Your task to perform on an android device: toggle location history Image 0: 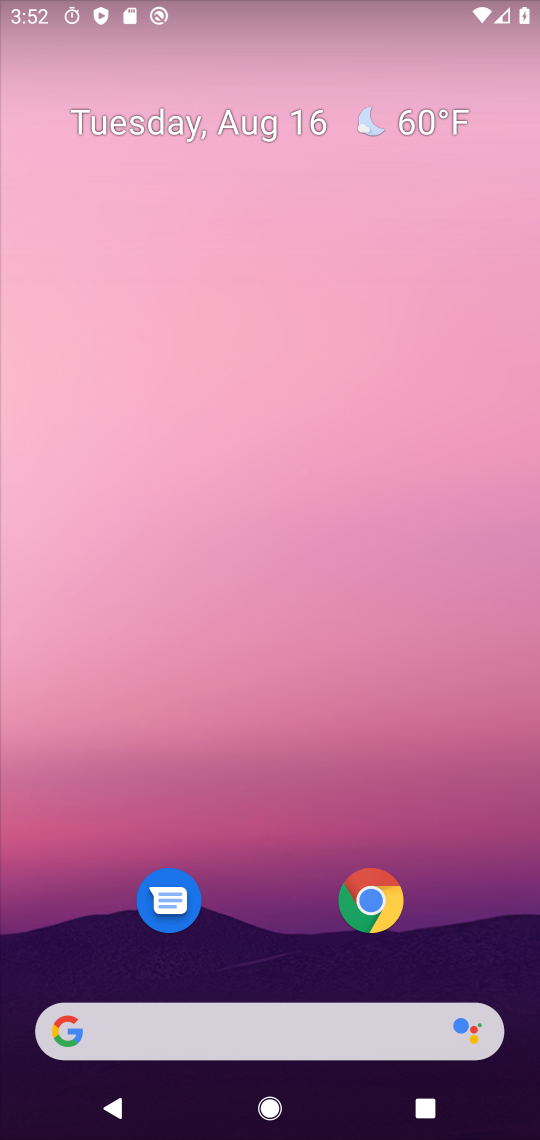
Step 0: drag from (294, 996) to (295, 12)
Your task to perform on an android device: toggle location history Image 1: 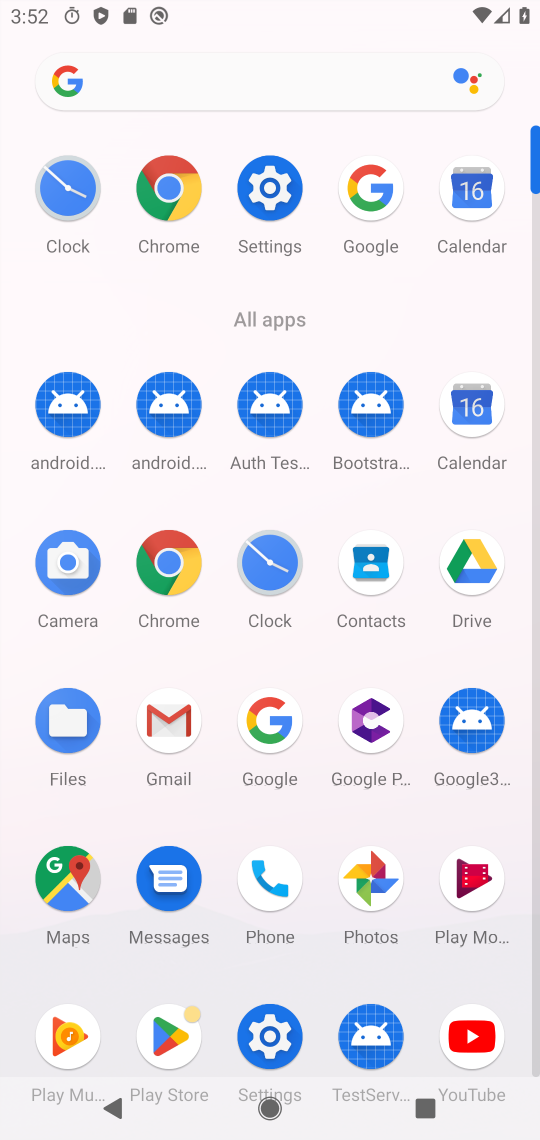
Step 1: click (269, 191)
Your task to perform on an android device: toggle location history Image 2: 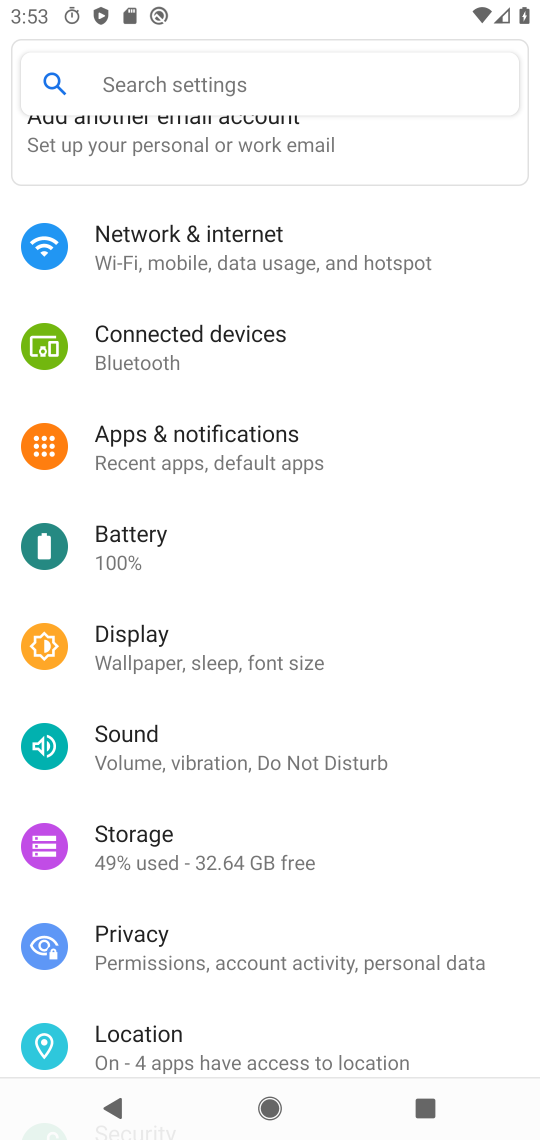
Step 2: click (136, 1034)
Your task to perform on an android device: toggle location history Image 3: 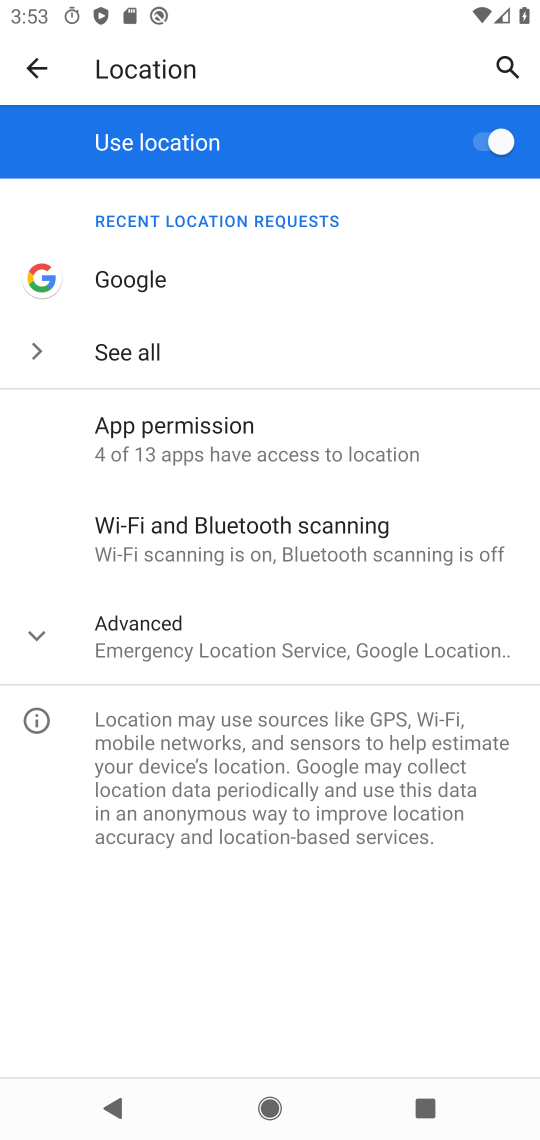
Step 3: click (141, 639)
Your task to perform on an android device: toggle location history Image 4: 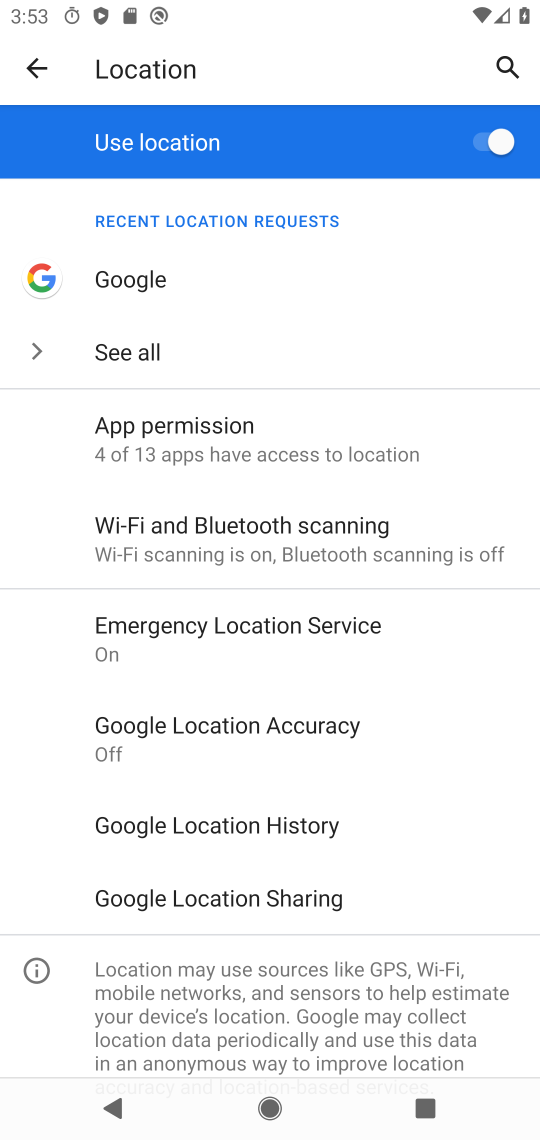
Step 4: click (194, 817)
Your task to perform on an android device: toggle location history Image 5: 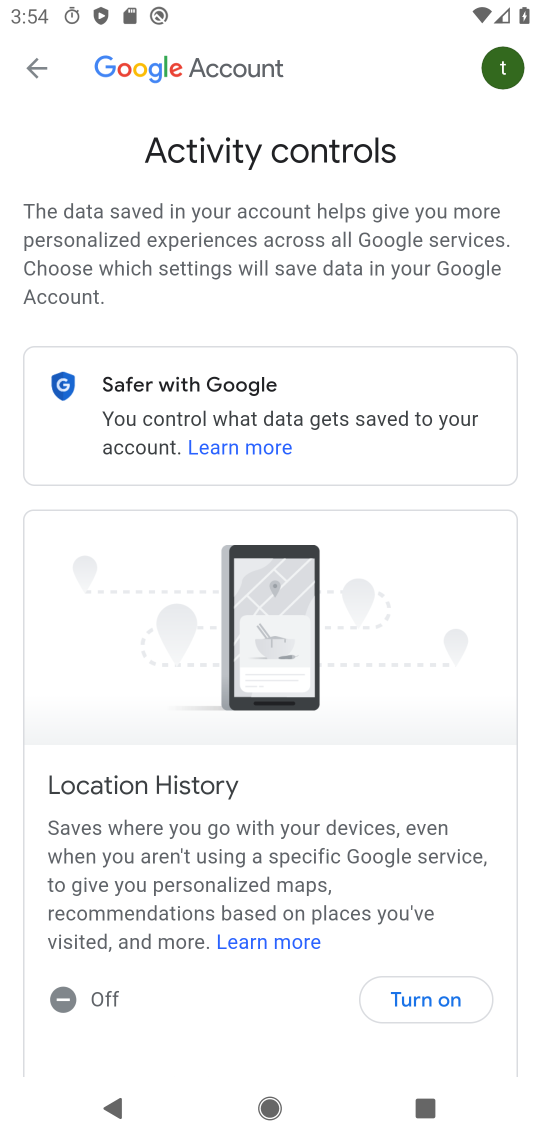
Step 5: click (426, 988)
Your task to perform on an android device: toggle location history Image 6: 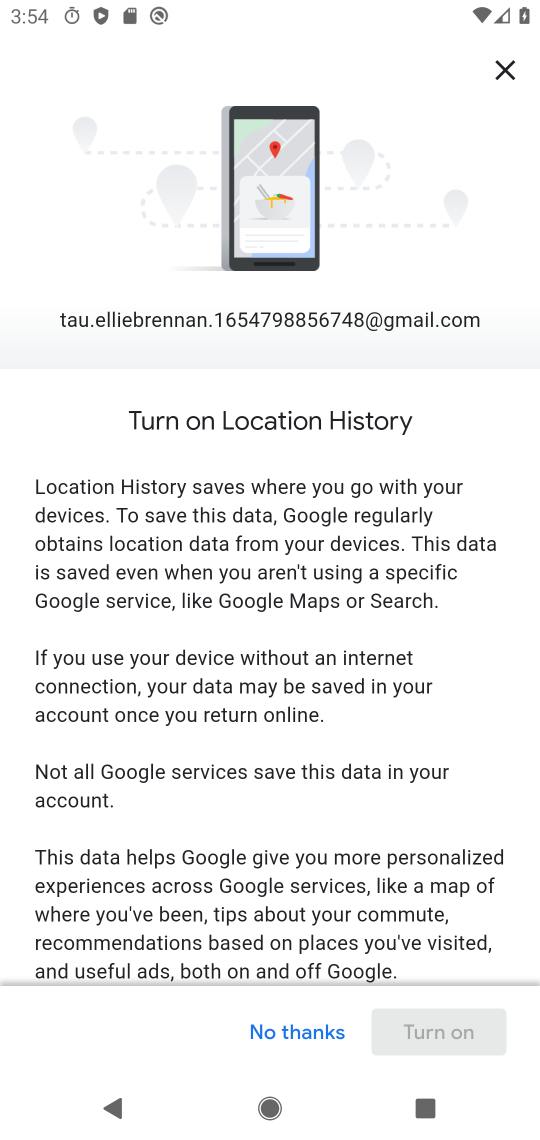
Step 6: drag from (302, 919) to (302, 863)
Your task to perform on an android device: toggle location history Image 7: 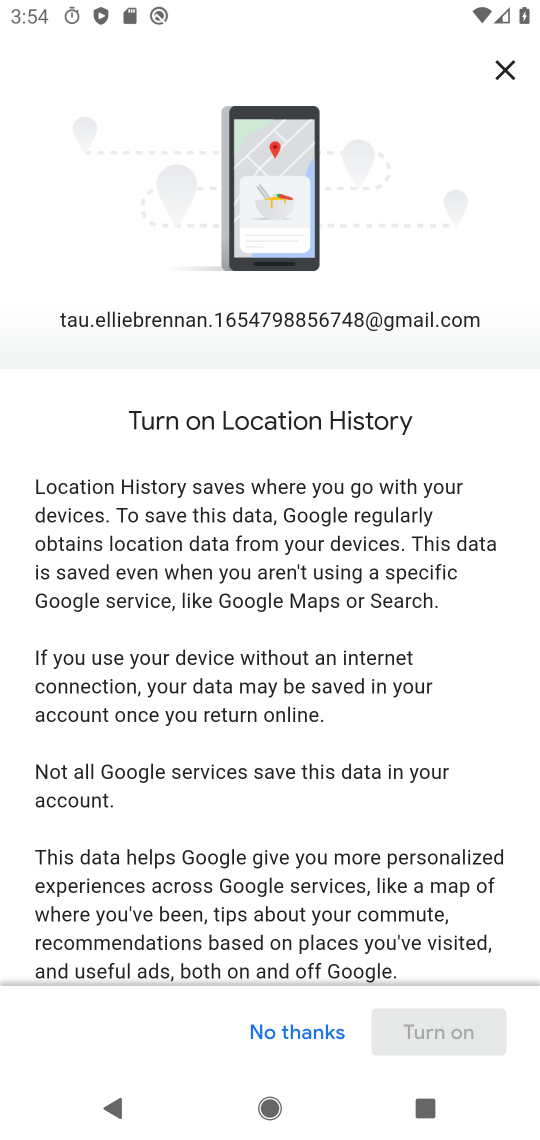
Step 7: click (271, 353)
Your task to perform on an android device: toggle location history Image 8: 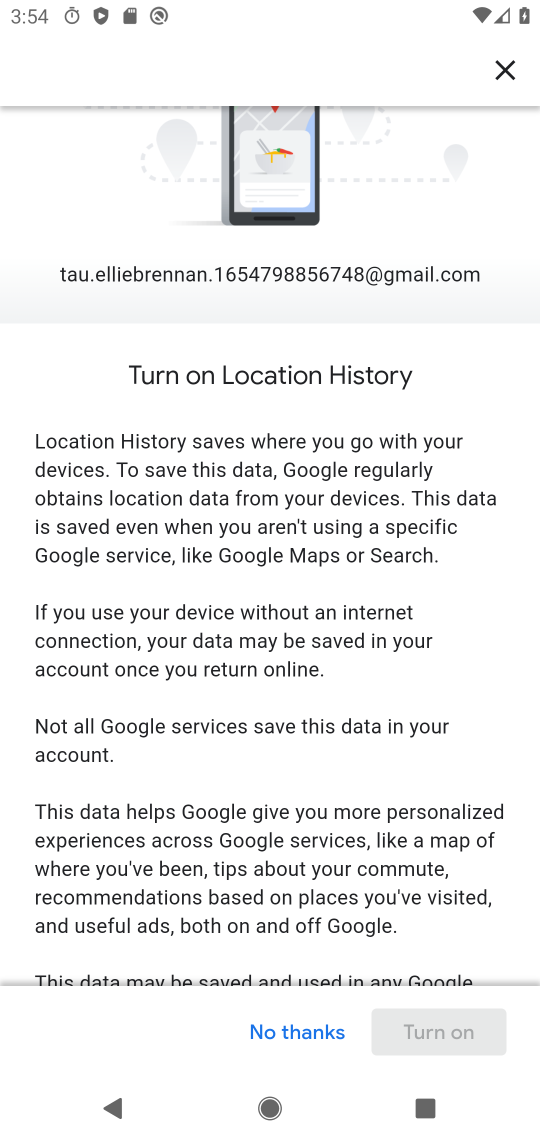
Step 8: drag from (372, 930) to (308, 387)
Your task to perform on an android device: toggle location history Image 9: 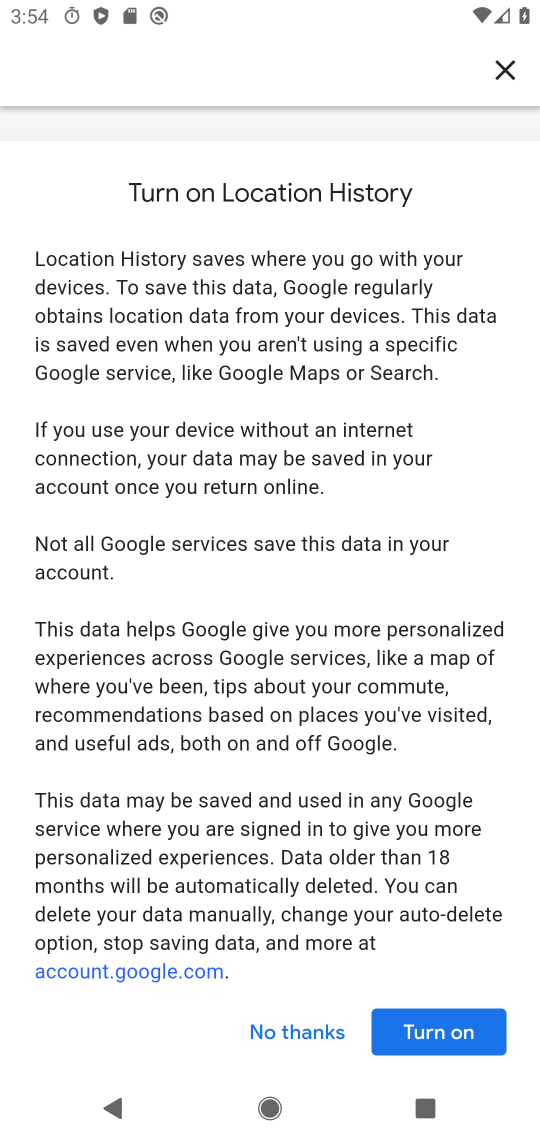
Step 9: click (423, 1038)
Your task to perform on an android device: toggle location history Image 10: 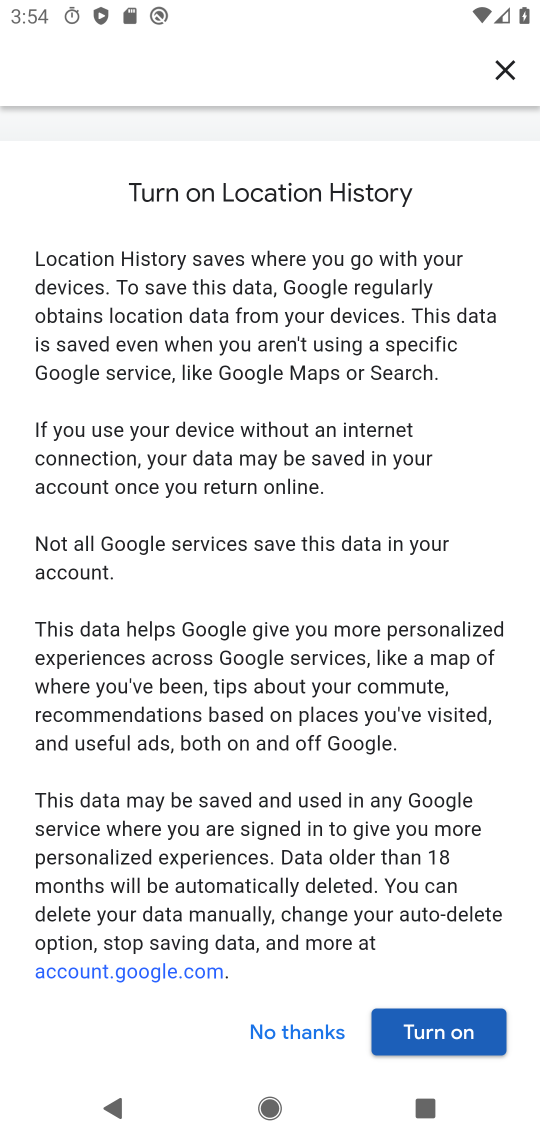
Step 10: click (423, 1045)
Your task to perform on an android device: toggle location history Image 11: 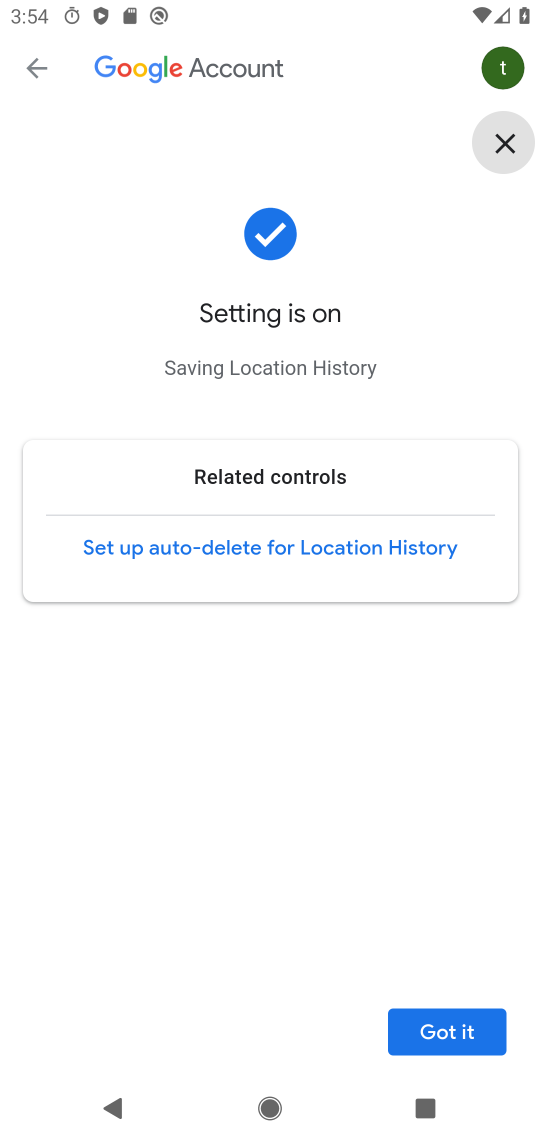
Step 11: click (455, 1019)
Your task to perform on an android device: toggle location history Image 12: 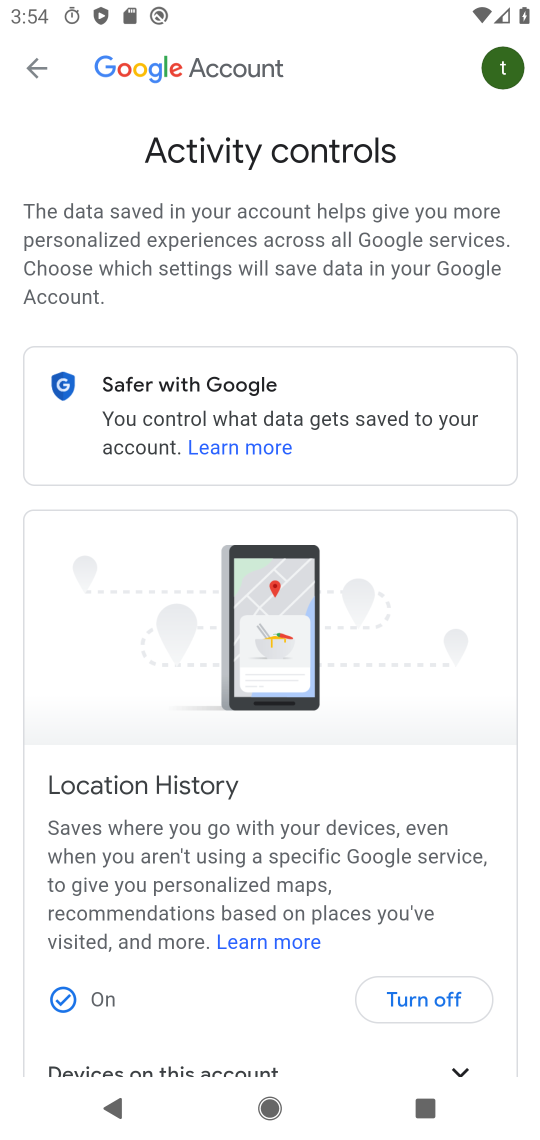
Step 12: task complete